Your task to perform on an android device: find which apps use the phone's location Image 0: 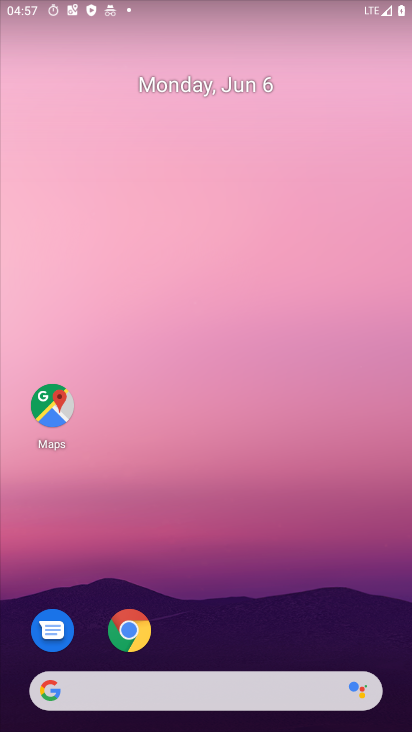
Step 0: drag from (267, 422) to (287, 95)
Your task to perform on an android device: find which apps use the phone's location Image 1: 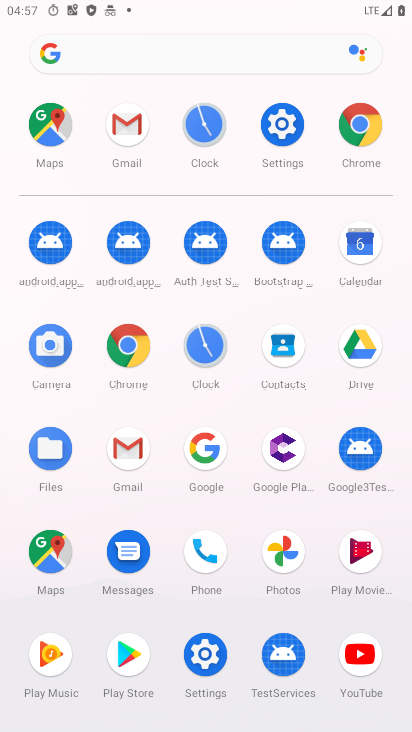
Step 1: click (211, 551)
Your task to perform on an android device: find which apps use the phone's location Image 2: 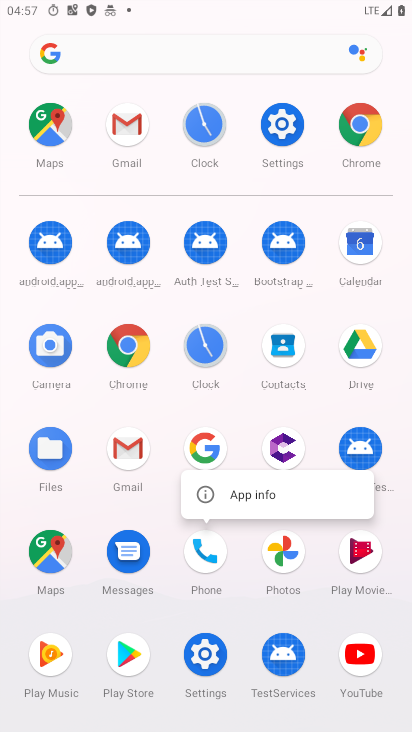
Step 2: click (224, 497)
Your task to perform on an android device: find which apps use the phone's location Image 3: 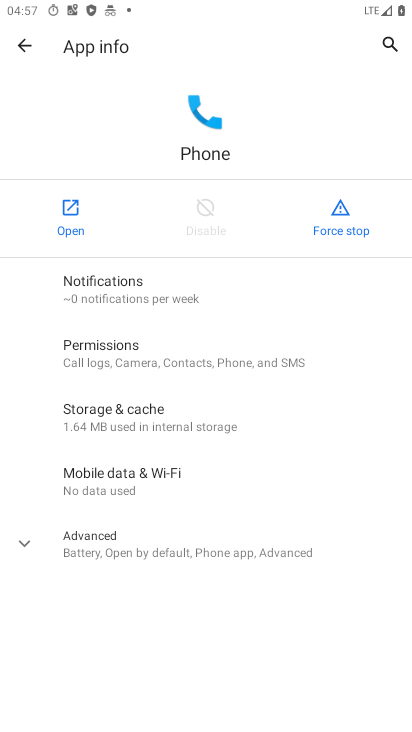
Step 3: click (122, 361)
Your task to perform on an android device: find which apps use the phone's location Image 4: 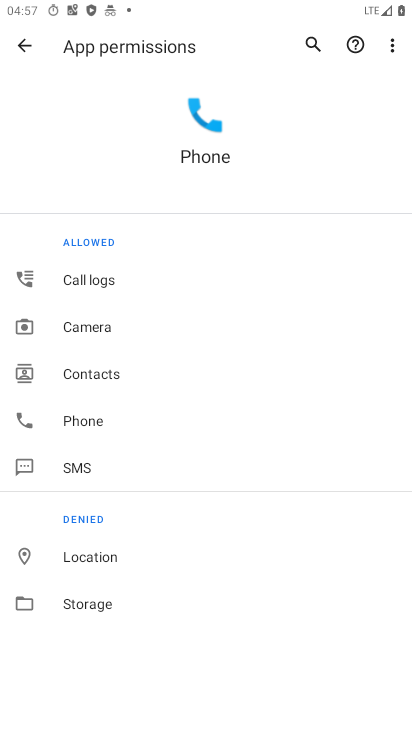
Step 4: click (107, 560)
Your task to perform on an android device: find which apps use the phone's location Image 5: 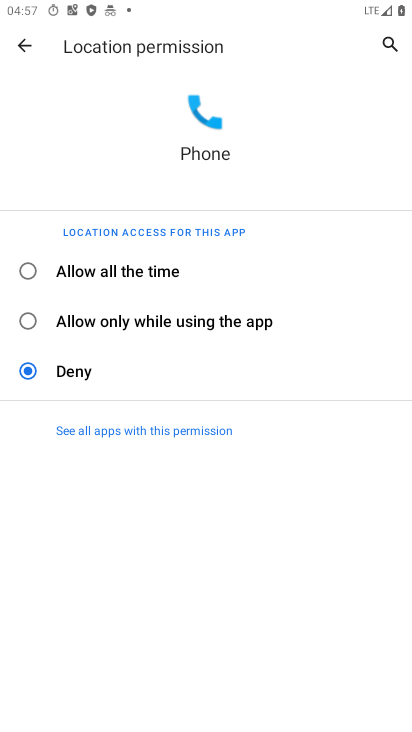
Step 5: task complete